Your task to perform on an android device: toggle pop-ups in chrome Image 0: 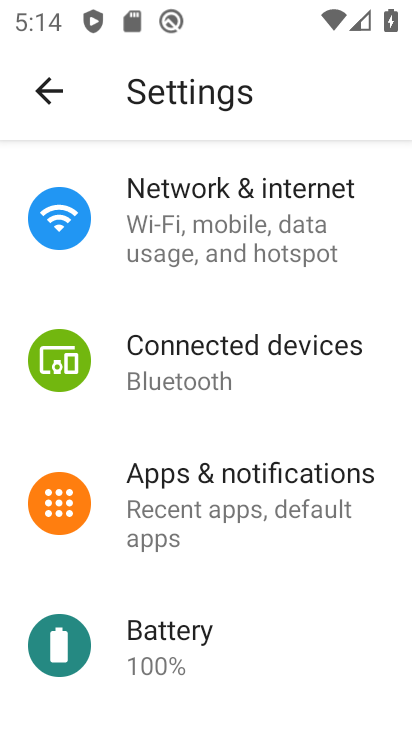
Step 0: drag from (262, 561) to (258, 226)
Your task to perform on an android device: toggle pop-ups in chrome Image 1: 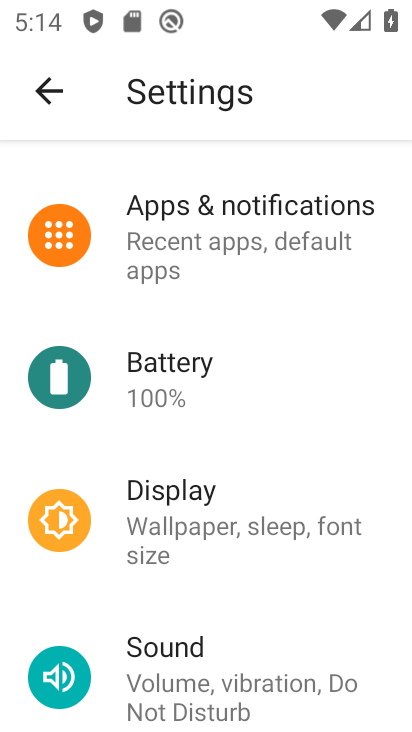
Step 1: press back button
Your task to perform on an android device: toggle pop-ups in chrome Image 2: 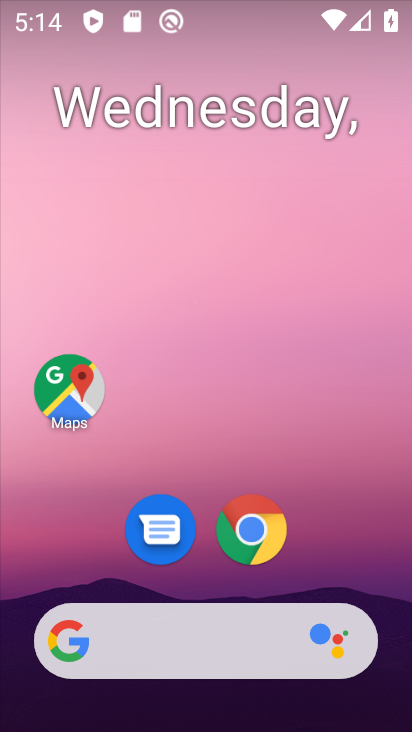
Step 2: click (255, 529)
Your task to perform on an android device: toggle pop-ups in chrome Image 3: 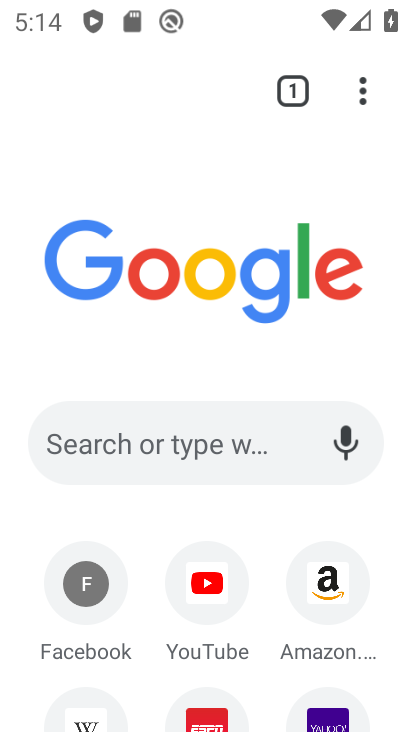
Step 3: drag from (5, 528) to (3, 231)
Your task to perform on an android device: toggle pop-ups in chrome Image 4: 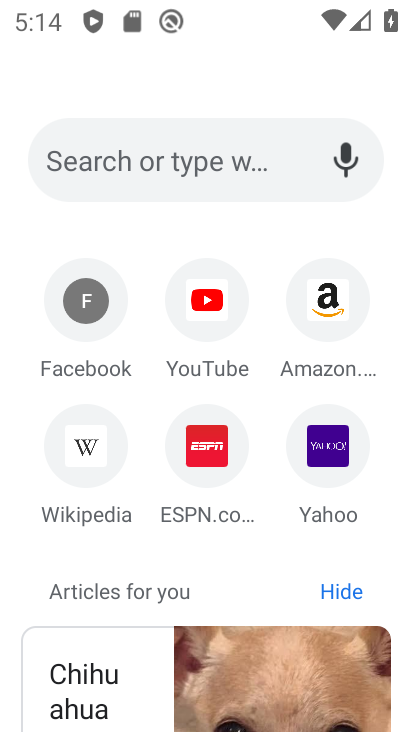
Step 4: drag from (7, 448) to (15, 202)
Your task to perform on an android device: toggle pop-ups in chrome Image 5: 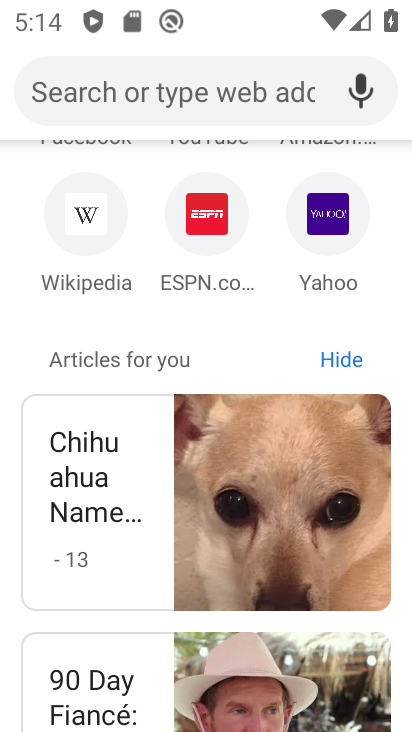
Step 5: drag from (15, 239) to (14, 360)
Your task to perform on an android device: toggle pop-ups in chrome Image 6: 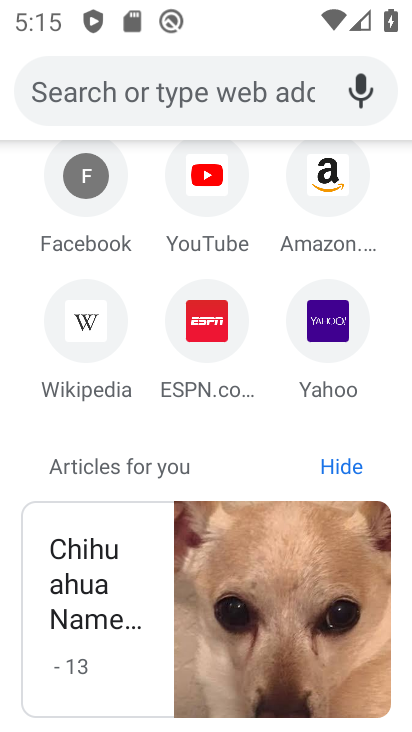
Step 6: drag from (9, 178) to (5, 496)
Your task to perform on an android device: toggle pop-ups in chrome Image 7: 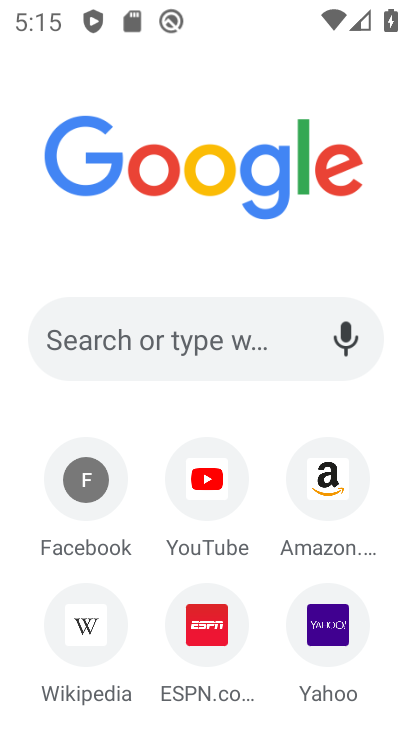
Step 7: drag from (27, 241) to (24, 411)
Your task to perform on an android device: toggle pop-ups in chrome Image 8: 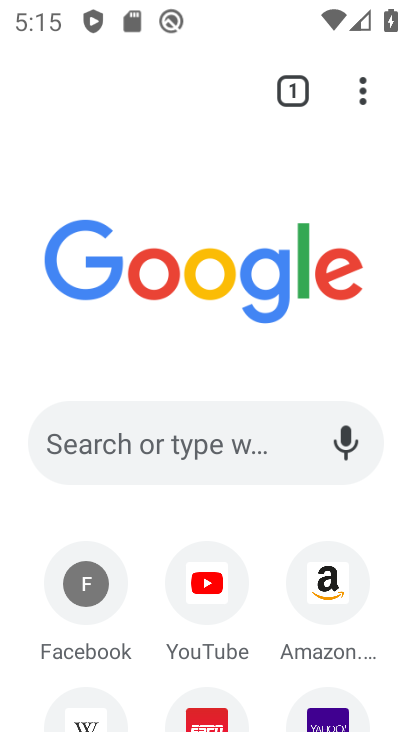
Step 8: drag from (366, 87) to (177, 549)
Your task to perform on an android device: toggle pop-ups in chrome Image 9: 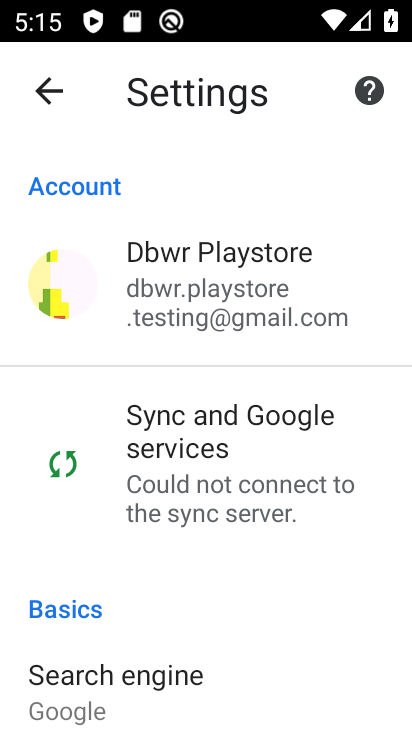
Step 9: drag from (273, 578) to (263, 178)
Your task to perform on an android device: toggle pop-ups in chrome Image 10: 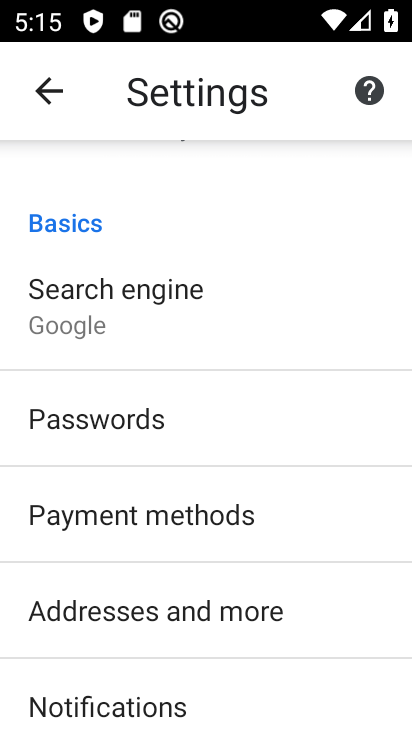
Step 10: drag from (235, 585) to (235, 199)
Your task to perform on an android device: toggle pop-ups in chrome Image 11: 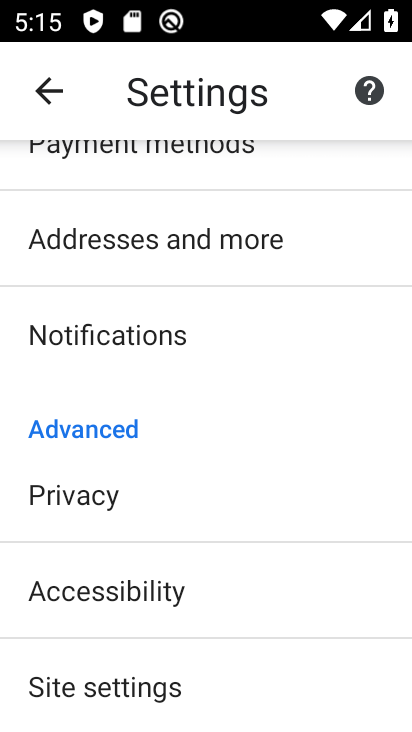
Step 11: drag from (234, 581) to (236, 263)
Your task to perform on an android device: toggle pop-ups in chrome Image 12: 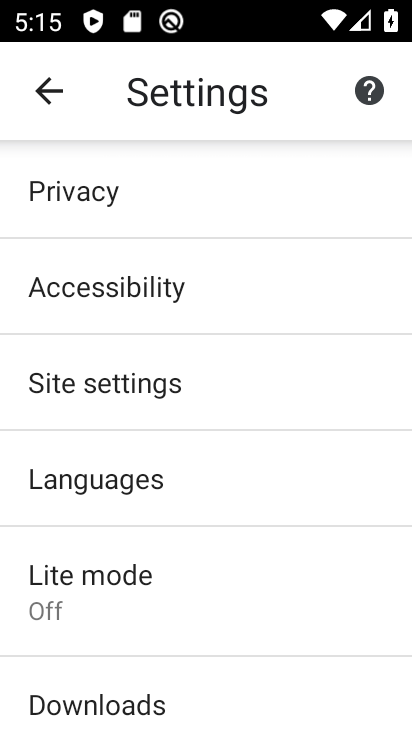
Step 12: drag from (242, 547) to (254, 263)
Your task to perform on an android device: toggle pop-ups in chrome Image 13: 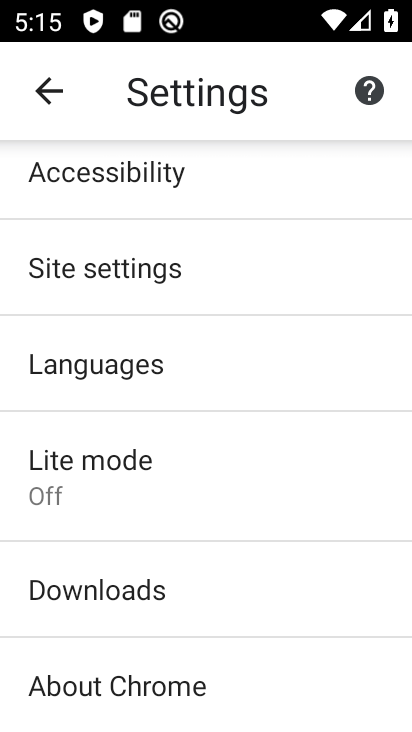
Step 13: drag from (223, 567) to (273, 305)
Your task to perform on an android device: toggle pop-ups in chrome Image 14: 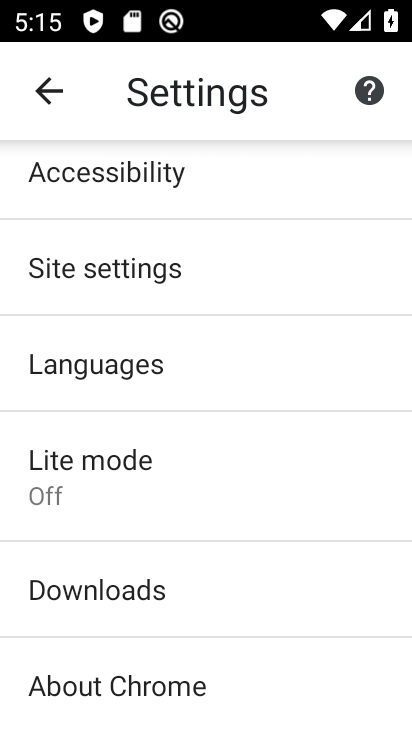
Step 14: click (171, 281)
Your task to perform on an android device: toggle pop-ups in chrome Image 15: 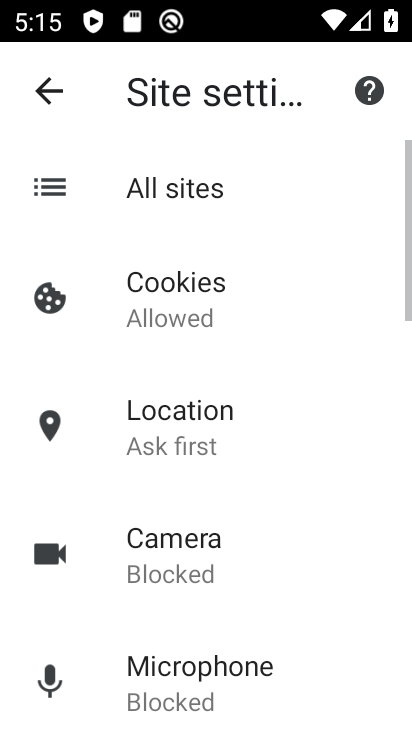
Step 15: drag from (263, 571) to (277, 305)
Your task to perform on an android device: toggle pop-ups in chrome Image 16: 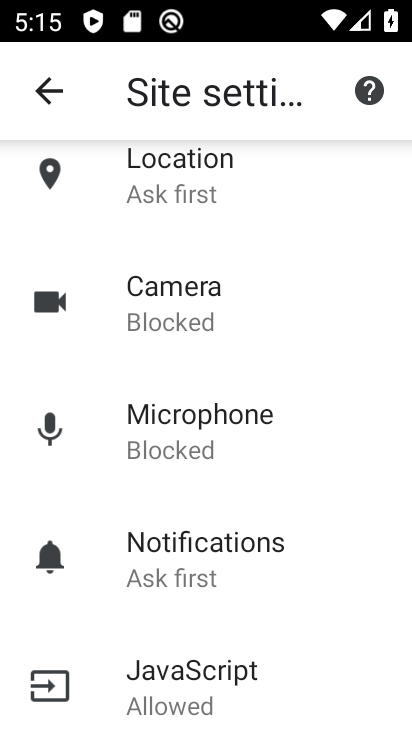
Step 16: drag from (254, 601) to (258, 199)
Your task to perform on an android device: toggle pop-ups in chrome Image 17: 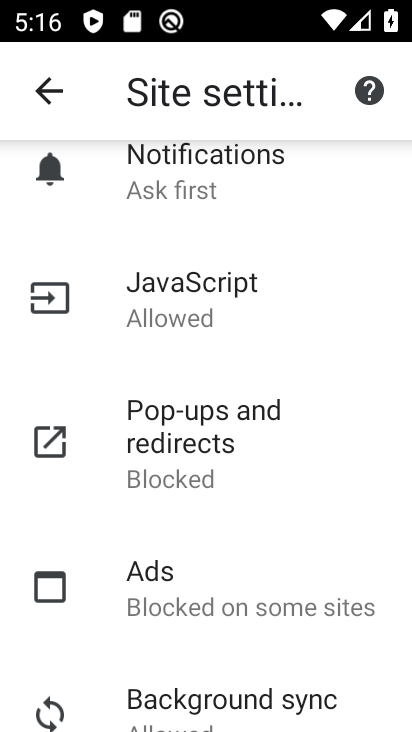
Step 17: click (240, 427)
Your task to perform on an android device: toggle pop-ups in chrome Image 18: 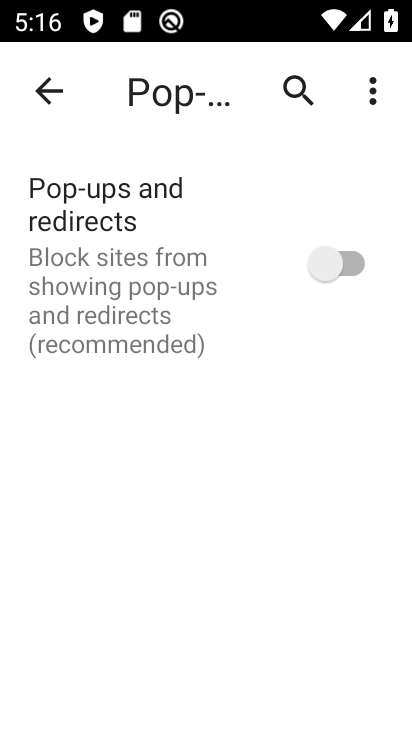
Step 18: click (335, 256)
Your task to perform on an android device: toggle pop-ups in chrome Image 19: 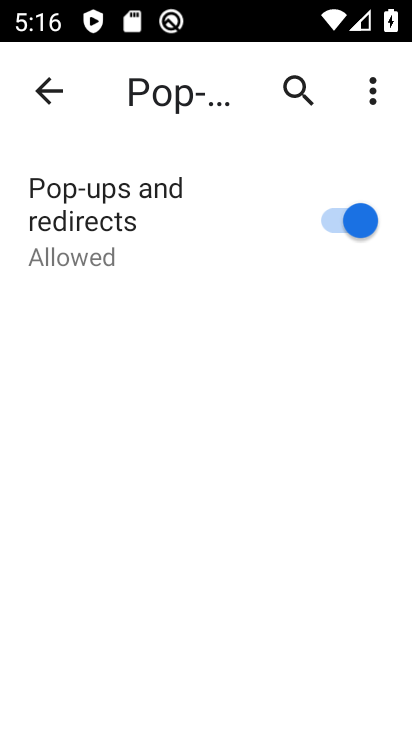
Step 19: task complete